Your task to perform on an android device: Open calendar and show me the third week of next month Image 0: 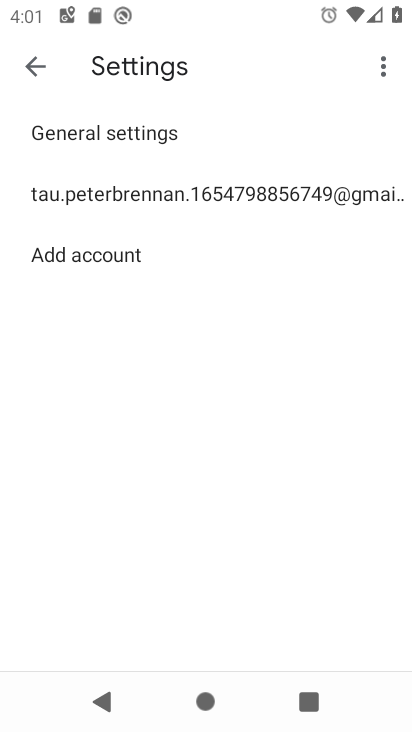
Step 0: press home button
Your task to perform on an android device: Open calendar and show me the third week of next month Image 1: 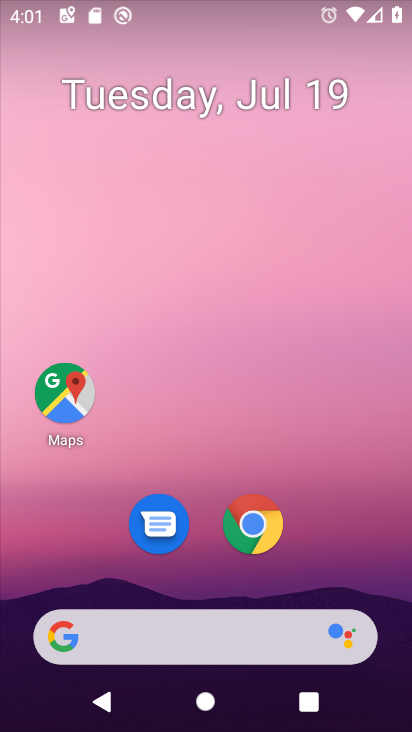
Step 1: drag from (331, 557) to (325, 123)
Your task to perform on an android device: Open calendar and show me the third week of next month Image 2: 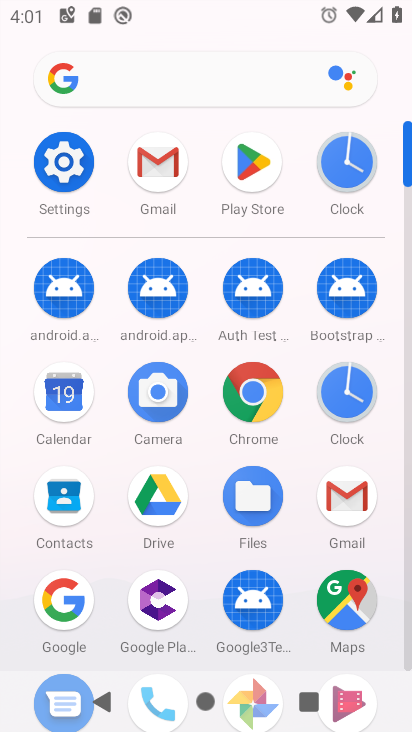
Step 2: click (59, 391)
Your task to perform on an android device: Open calendar and show me the third week of next month Image 3: 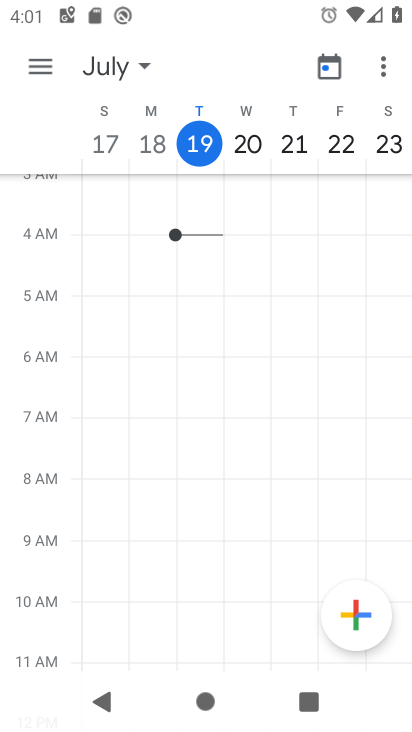
Step 3: task complete